Your task to perform on an android device: How do I get to the nearest Home Depot? Image 0: 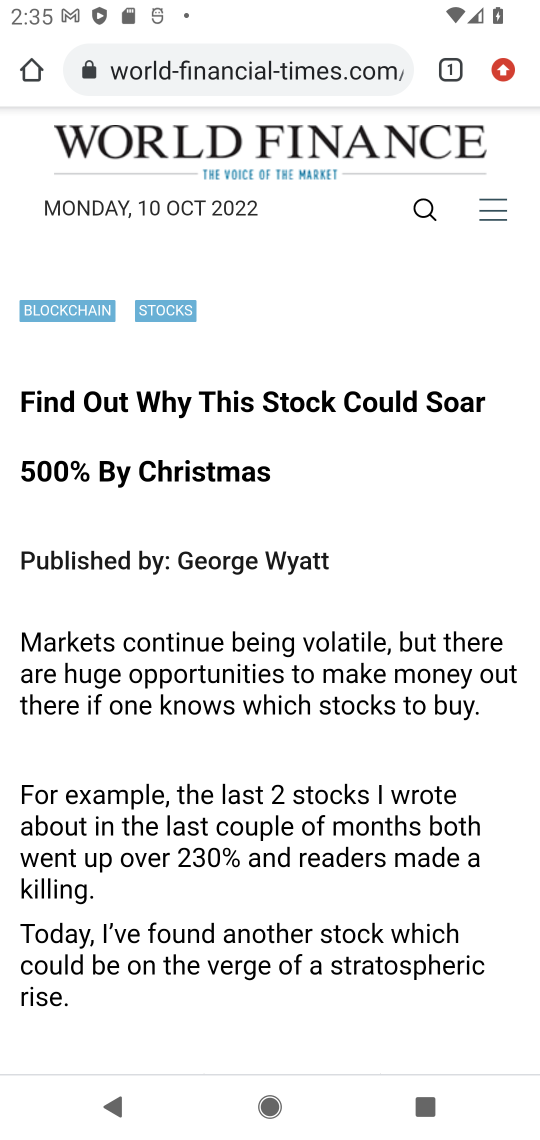
Step 0: press home button
Your task to perform on an android device: How do I get to the nearest Home Depot? Image 1: 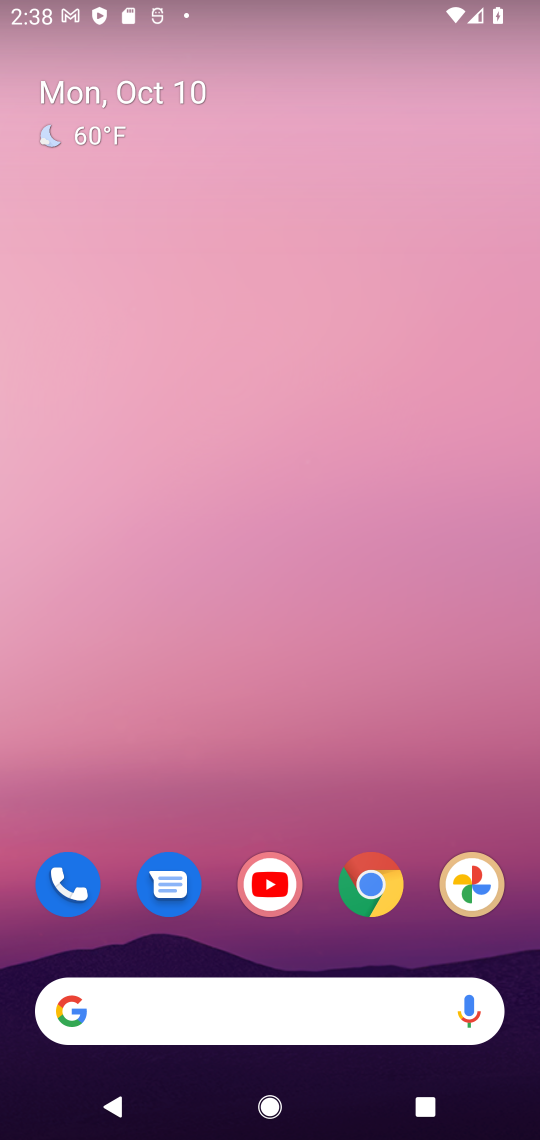
Step 1: click (365, 892)
Your task to perform on an android device: How do I get to the nearest Home Depot? Image 2: 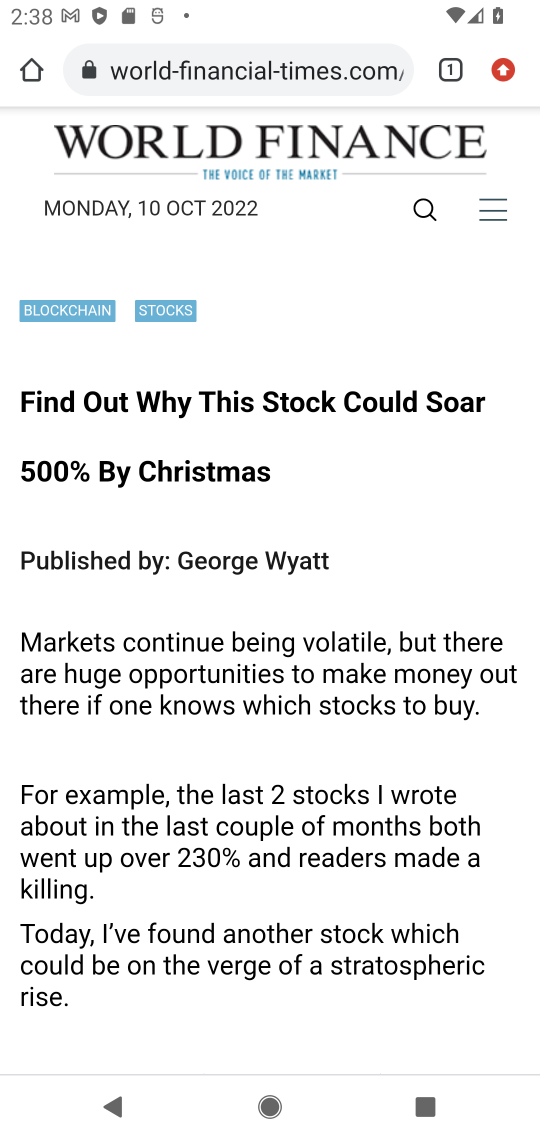
Step 2: click (243, 76)
Your task to perform on an android device: How do I get to the nearest Home Depot? Image 3: 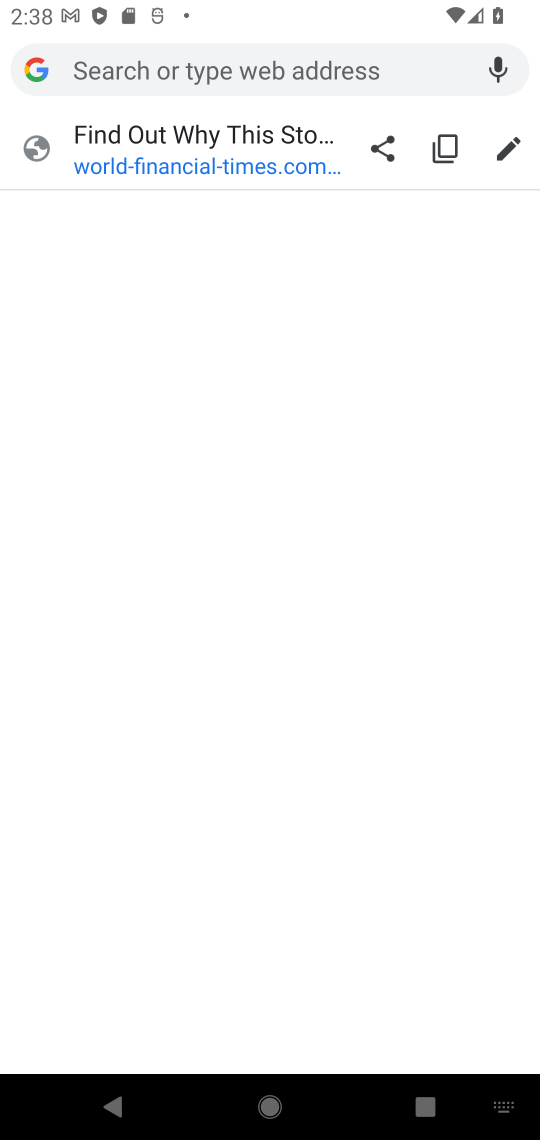
Step 3: type "How do I get to the nearest Home Depot"
Your task to perform on an android device: How do I get to the nearest Home Depot? Image 4: 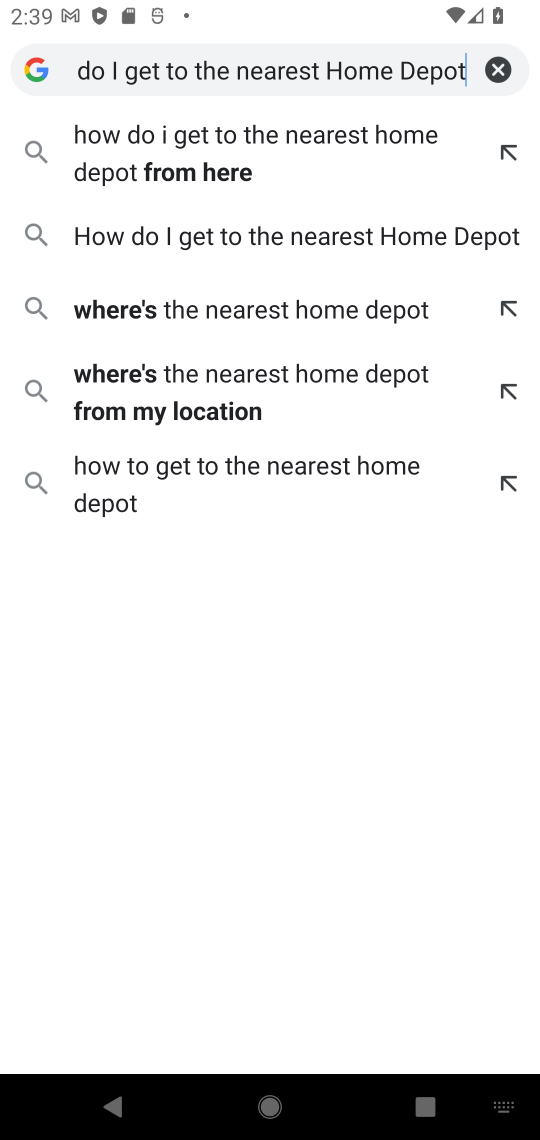
Step 4: click (216, 245)
Your task to perform on an android device: How do I get to the nearest Home Depot? Image 5: 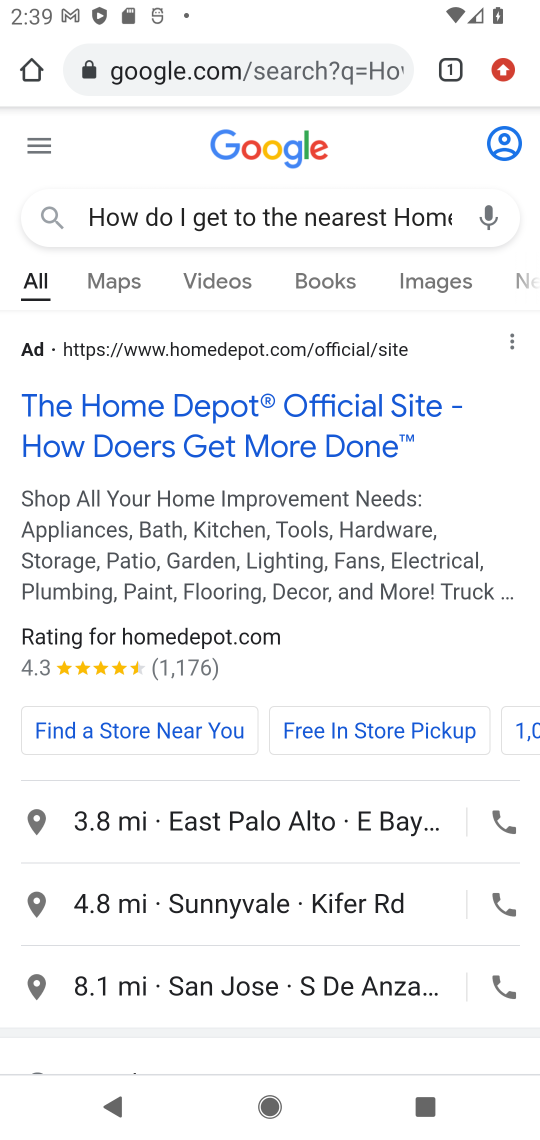
Step 5: task complete